Your task to perform on an android device: Check the weather Image 0: 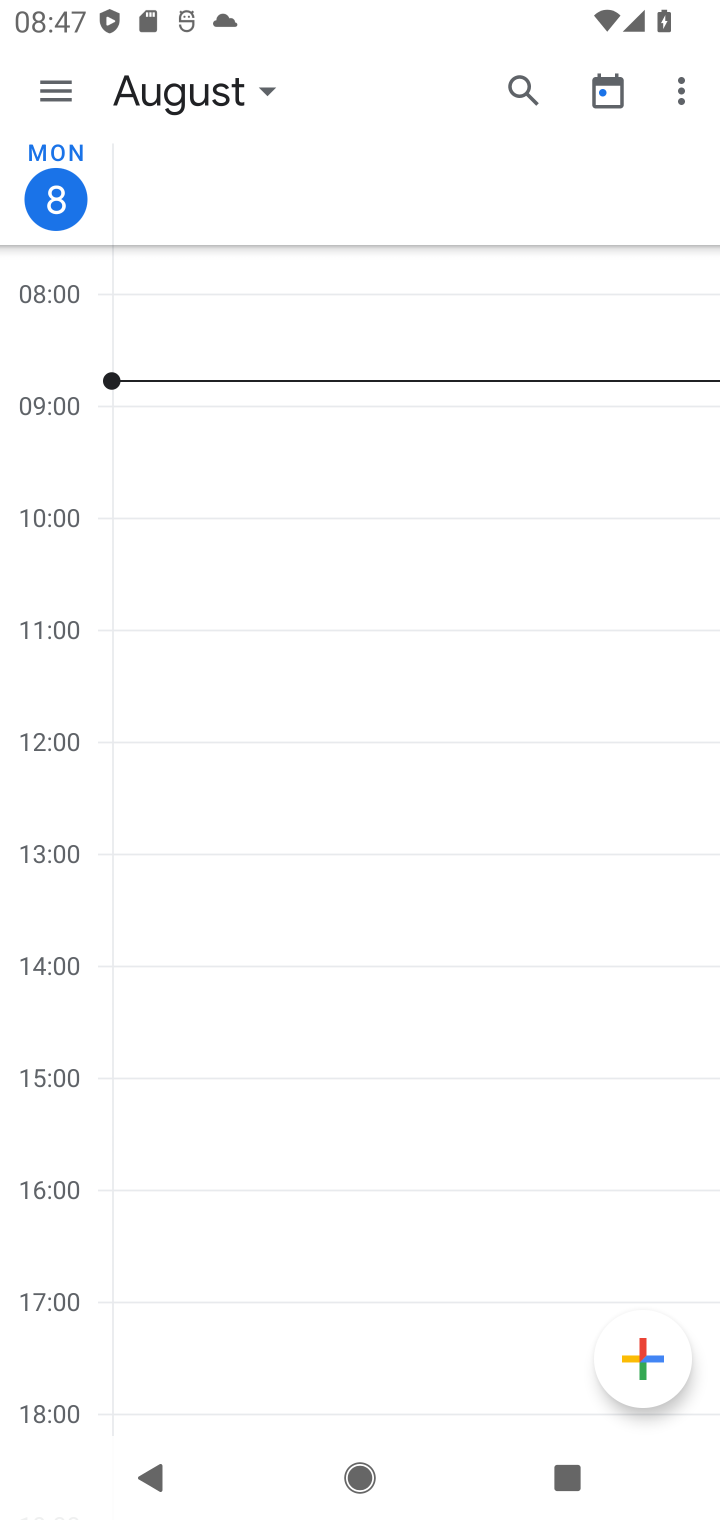
Step 0: press home button
Your task to perform on an android device: Check the weather Image 1: 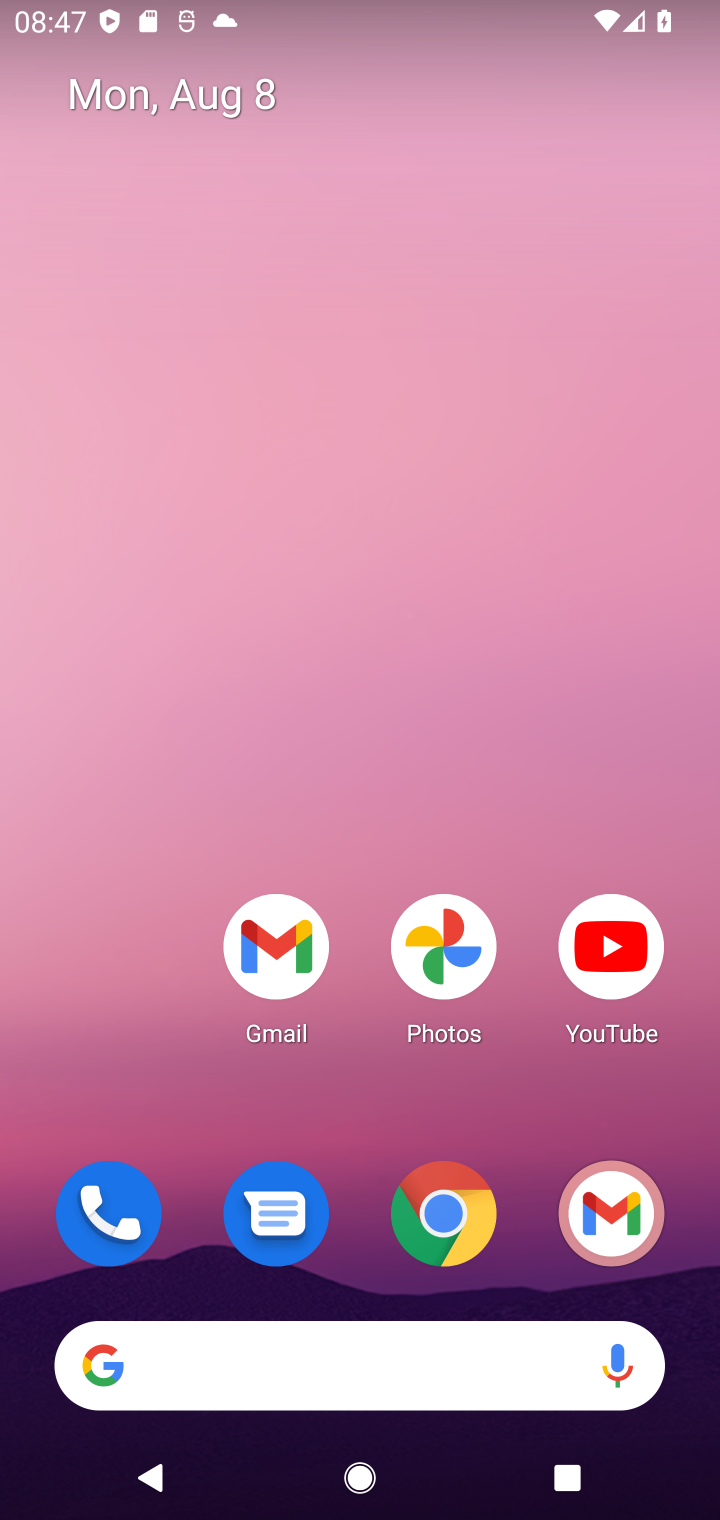
Step 1: drag from (531, 967) to (565, 164)
Your task to perform on an android device: Check the weather Image 2: 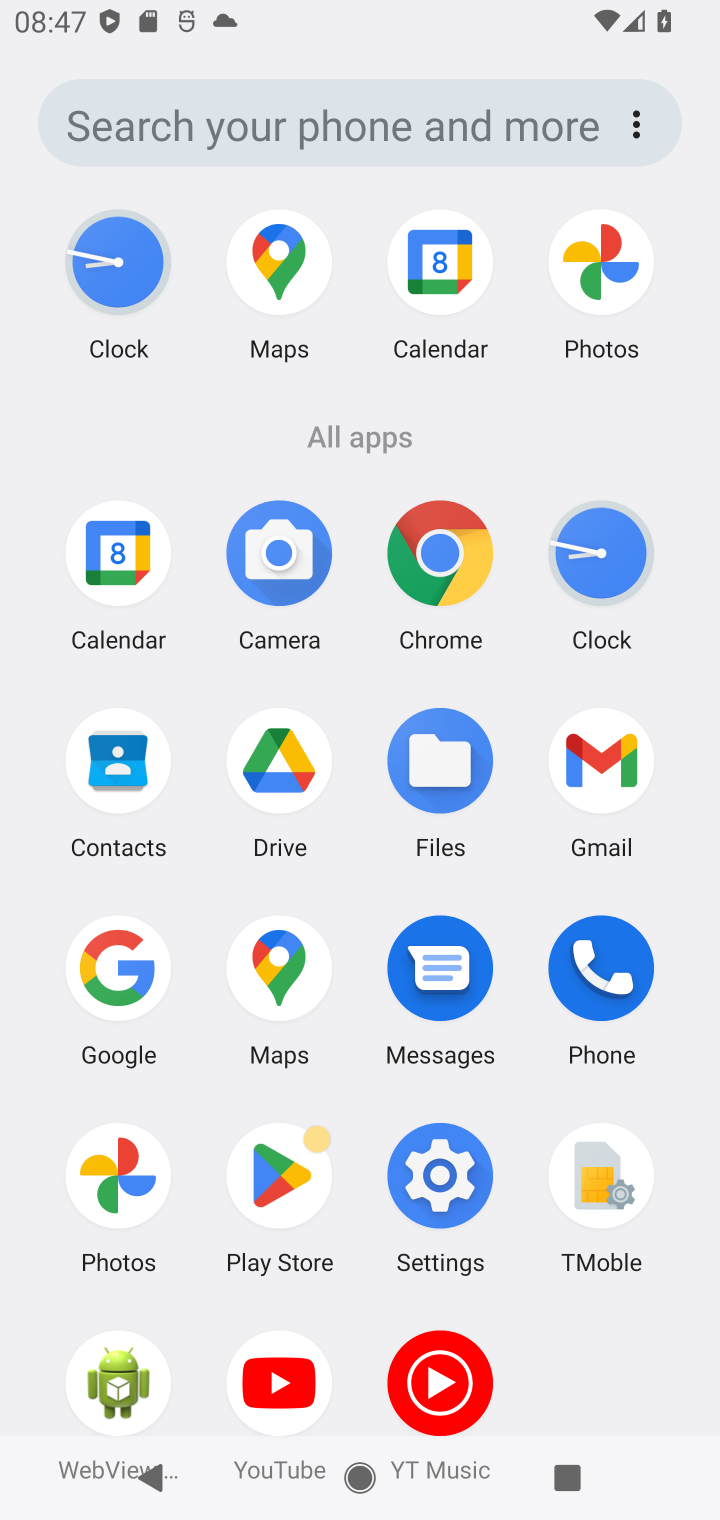
Step 2: click (443, 557)
Your task to perform on an android device: Check the weather Image 3: 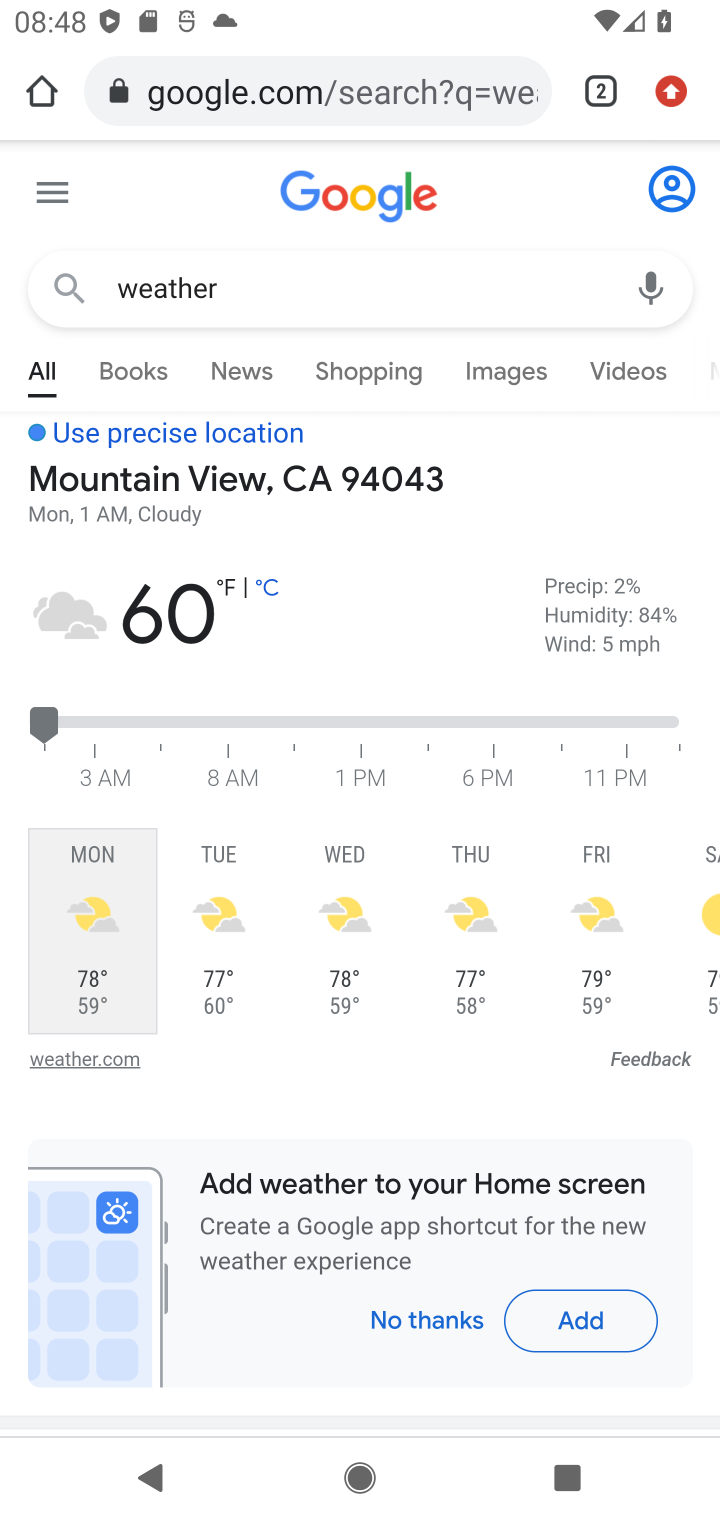
Step 3: task complete